Your task to perform on an android device: Go to Yahoo.com Image 0: 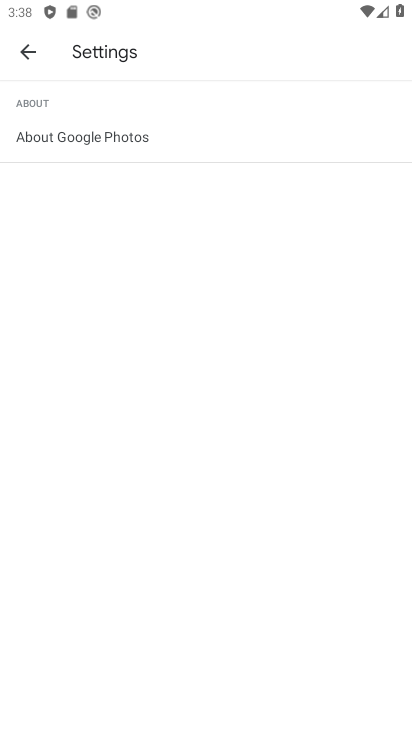
Step 0: press home button
Your task to perform on an android device: Go to Yahoo.com Image 1: 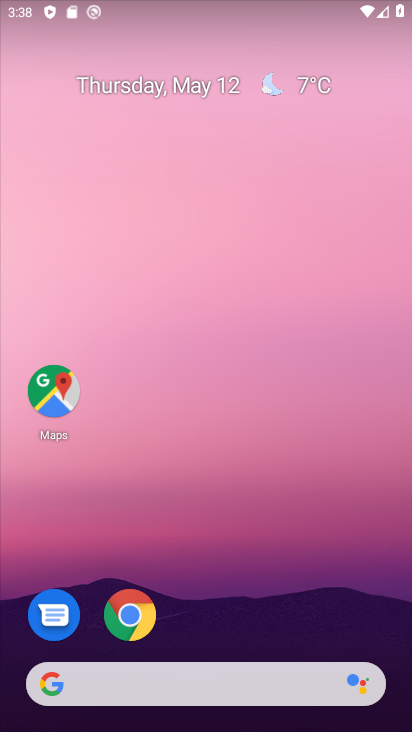
Step 1: click (137, 607)
Your task to perform on an android device: Go to Yahoo.com Image 2: 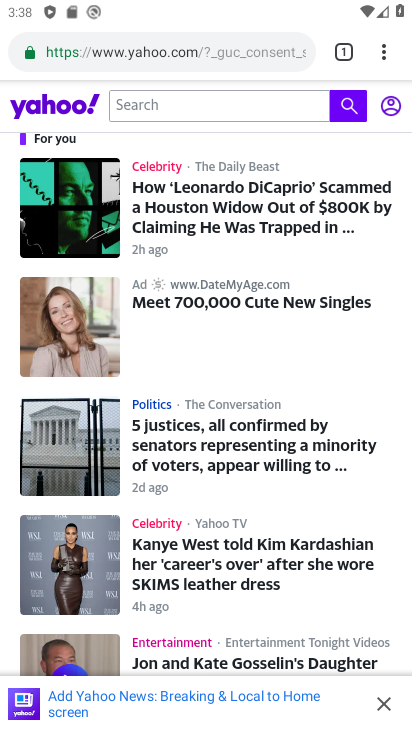
Step 2: task complete